Your task to perform on an android device: delete a single message in the gmail app Image 0: 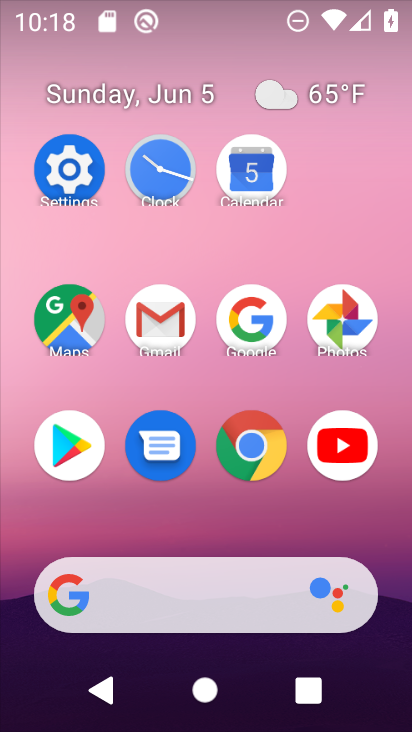
Step 0: click (120, 437)
Your task to perform on an android device: delete a single message in the gmail app Image 1: 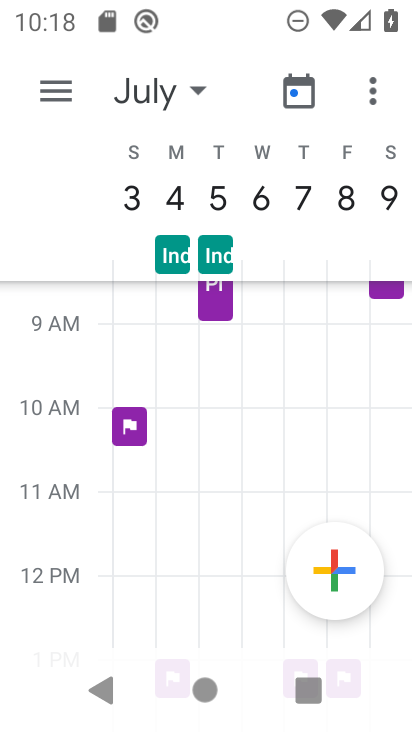
Step 1: press home button
Your task to perform on an android device: delete a single message in the gmail app Image 2: 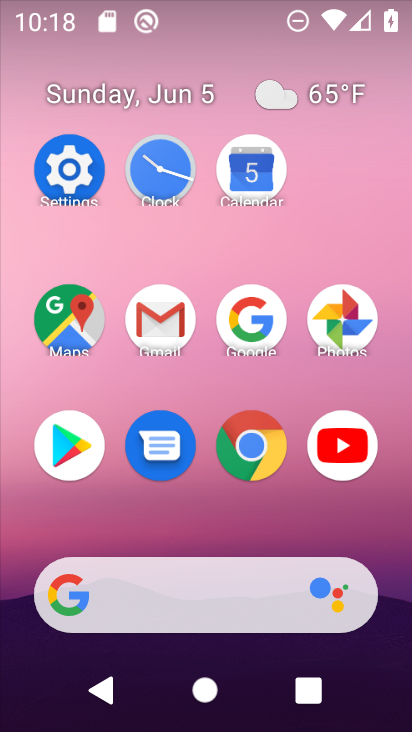
Step 2: click (167, 314)
Your task to perform on an android device: delete a single message in the gmail app Image 3: 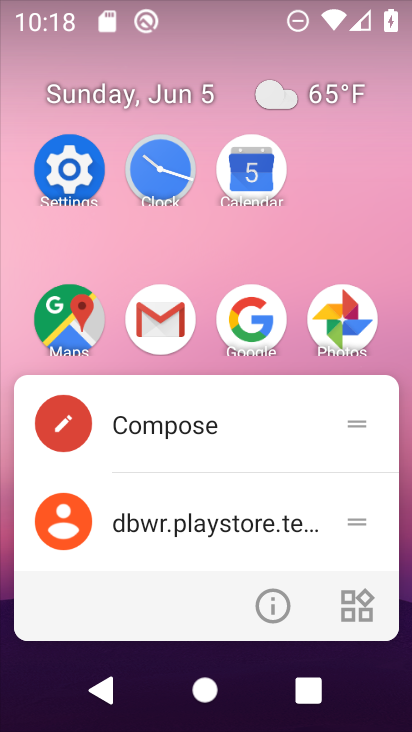
Step 3: click (173, 331)
Your task to perform on an android device: delete a single message in the gmail app Image 4: 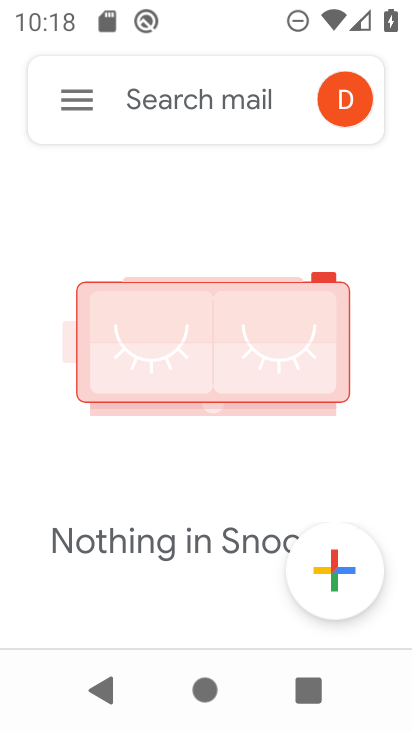
Step 4: click (58, 77)
Your task to perform on an android device: delete a single message in the gmail app Image 5: 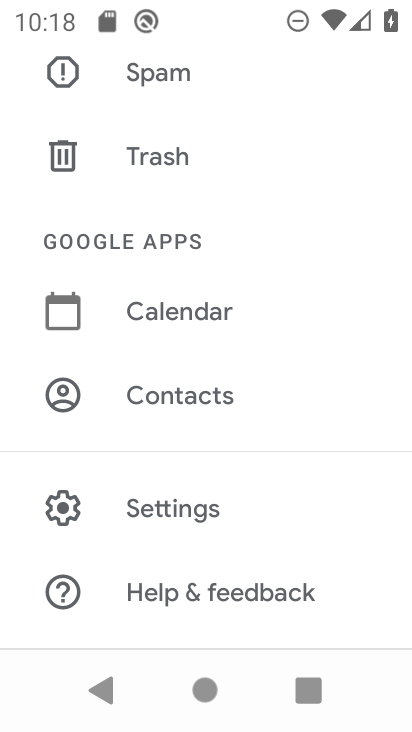
Step 5: drag from (232, 154) to (282, 548)
Your task to perform on an android device: delete a single message in the gmail app Image 6: 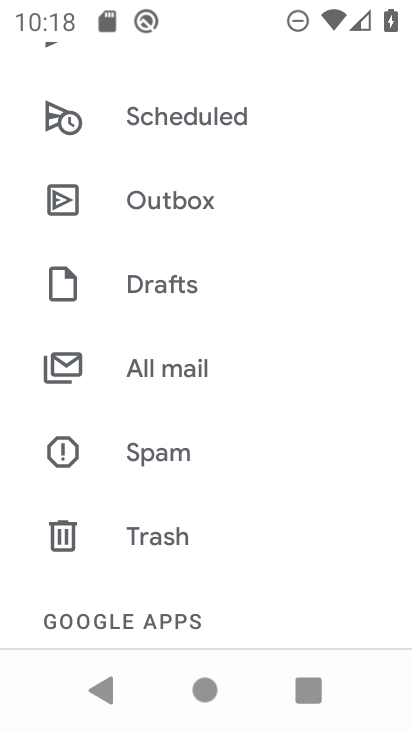
Step 6: click (271, 342)
Your task to perform on an android device: delete a single message in the gmail app Image 7: 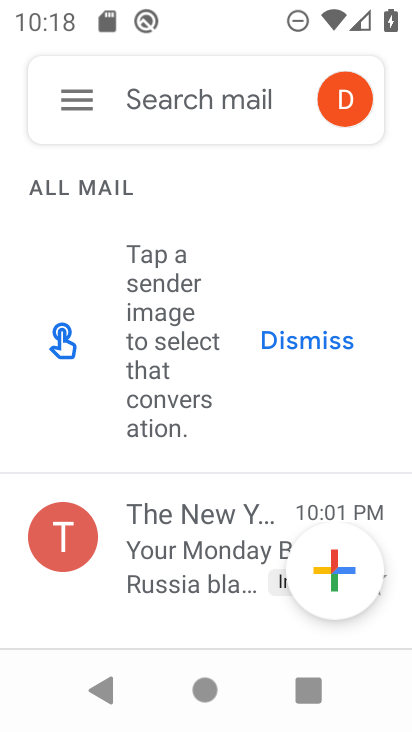
Step 7: click (243, 525)
Your task to perform on an android device: delete a single message in the gmail app Image 8: 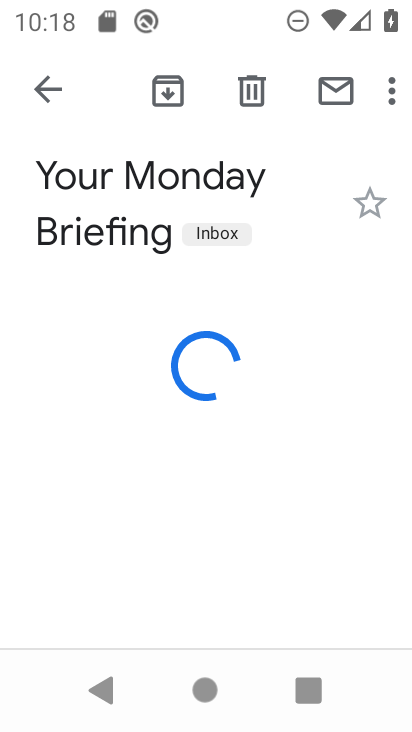
Step 8: click (235, 74)
Your task to perform on an android device: delete a single message in the gmail app Image 9: 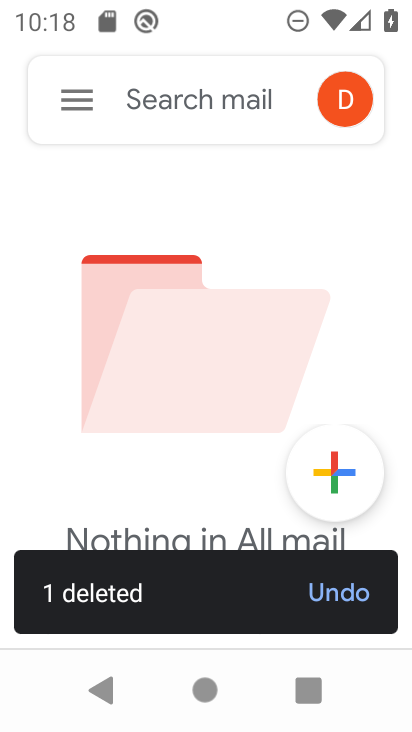
Step 9: task complete